Your task to perform on an android device: empty trash in the gmail app Image 0: 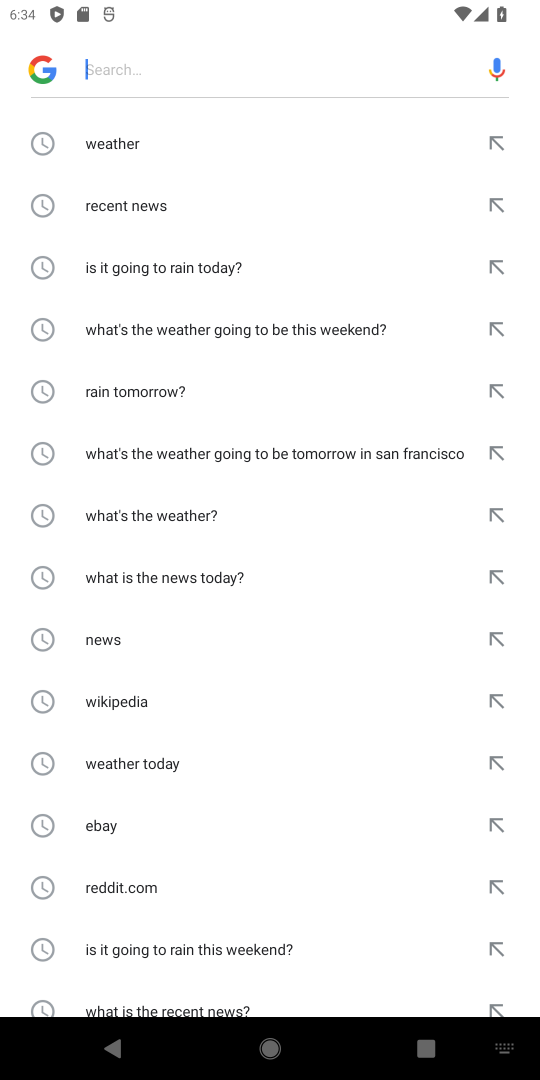
Step 0: press home button
Your task to perform on an android device: empty trash in the gmail app Image 1: 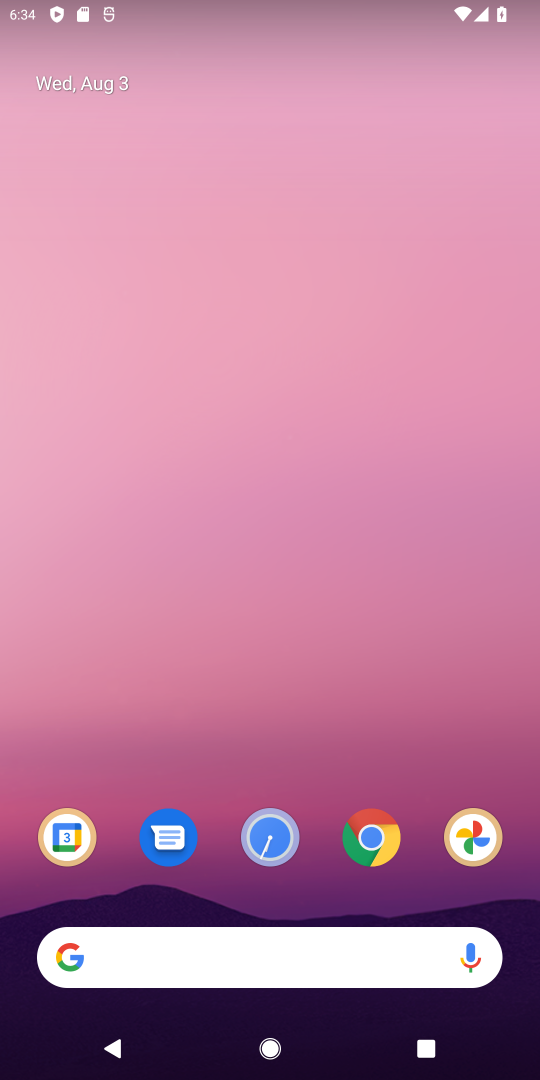
Step 1: drag from (329, 748) to (357, 0)
Your task to perform on an android device: empty trash in the gmail app Image 2: 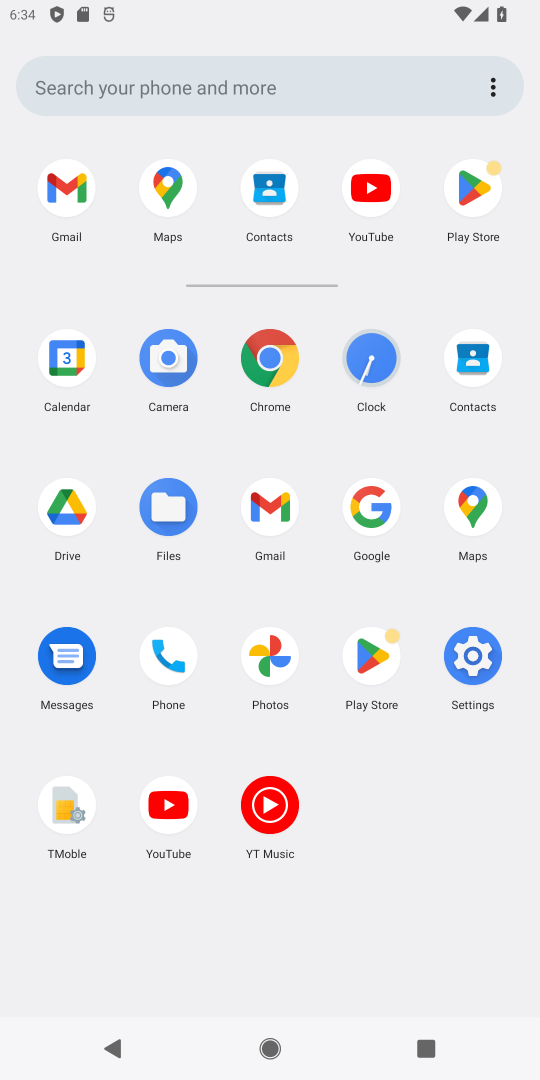
Step 2: click (69, 199)
Your task to perform on an android device: empty trash in the gmail app Image 3: 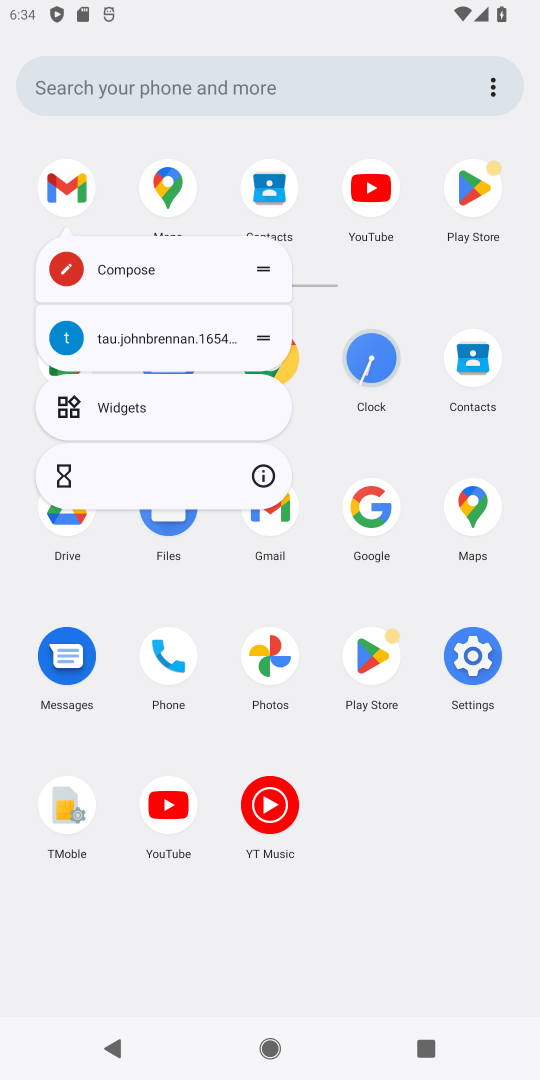
Step 3: click (62, 177)
Your task to perform on an android device: empty trash in the gmail app Image 4: 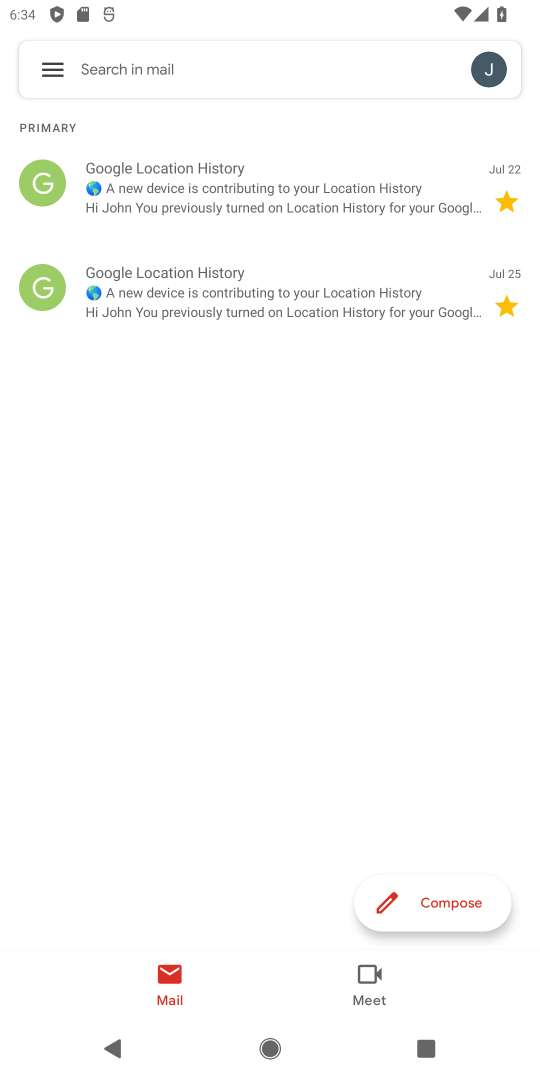
Step 4: click (45, 65)
Your task to perform on an android device: empty trash in the gmail app Image 5: 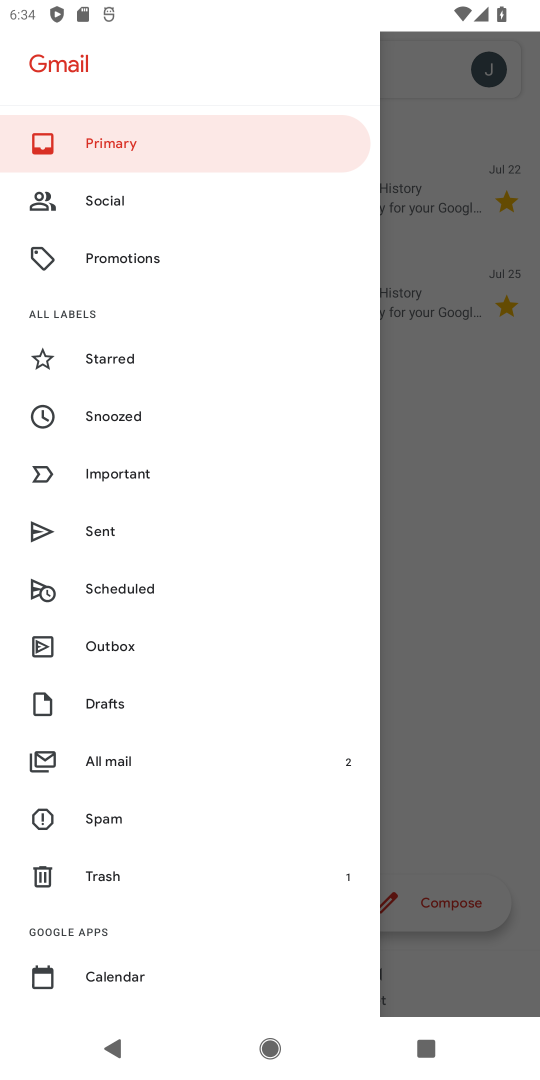
Step 5: click (113, 874)
Your task to perform on an android device: empty trash in the gmail app Image 6: 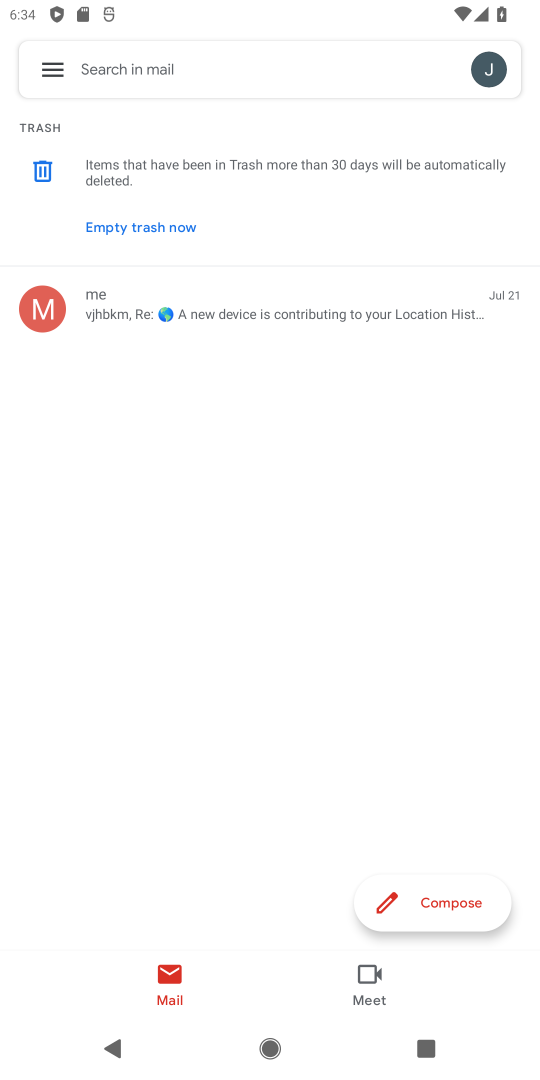
Step 6: click (146, 223)
Your task to perform on an android device: empty trash in the gmail app Image 7: 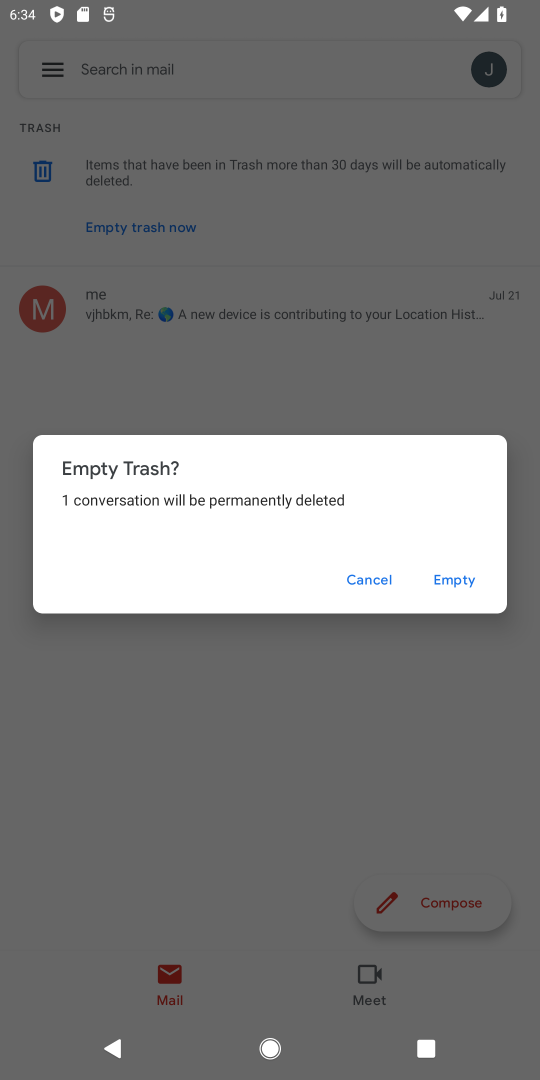
Step 7: click (447, 575)
Your task to perform on an android device: empty trash in the gmail app Image 8: 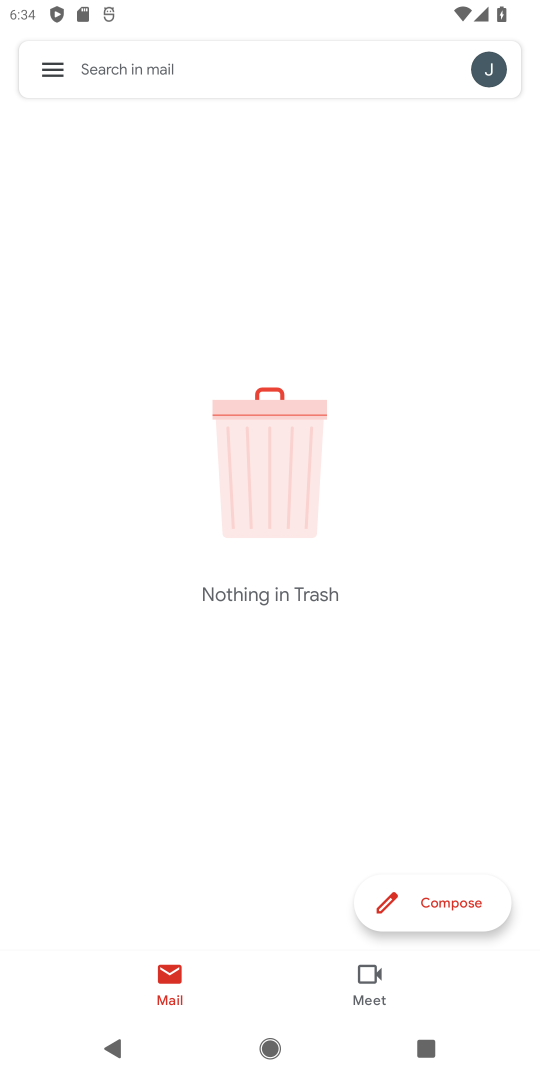
Step 8: task complete